Your task to perform on an android device: Open calendar and show me the third week of next month Image 0: 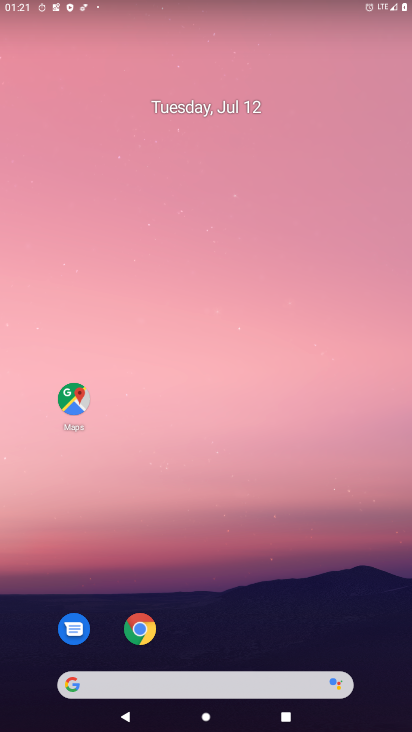
Step 0: drag from (44, 668) to (177, 63)
Your task to perform on an android device: Open calendar and show me the third week of next month Image 1: 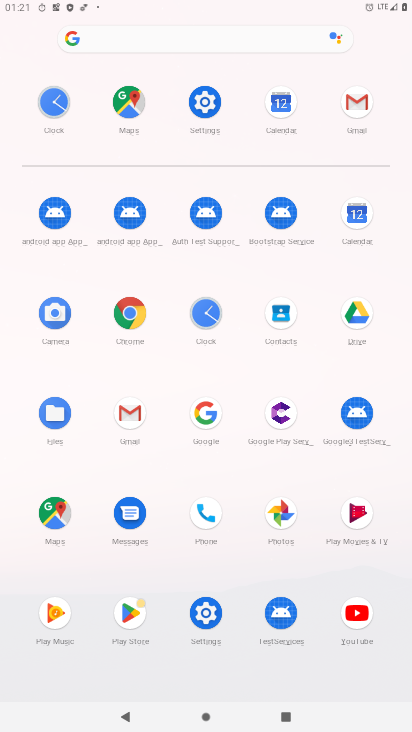
Step 1: click (357, 226)
Your task to perform on an android device: Open calendar and show me the third week of next month Image 2: 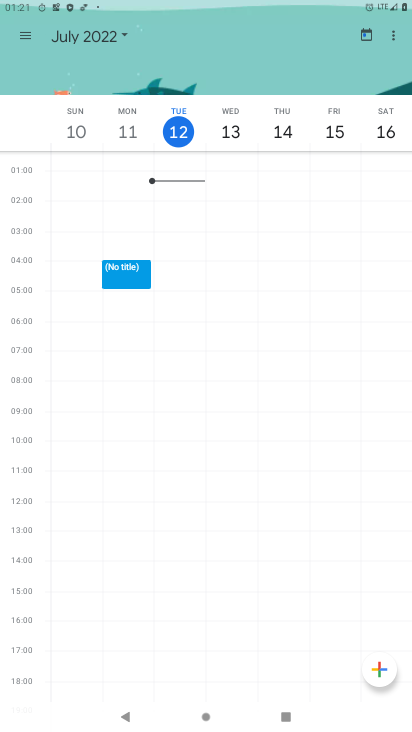
Step 2: click (61, 56)
Your task to perform on an android device: Open calendar and show me the third week of next month Image 3: 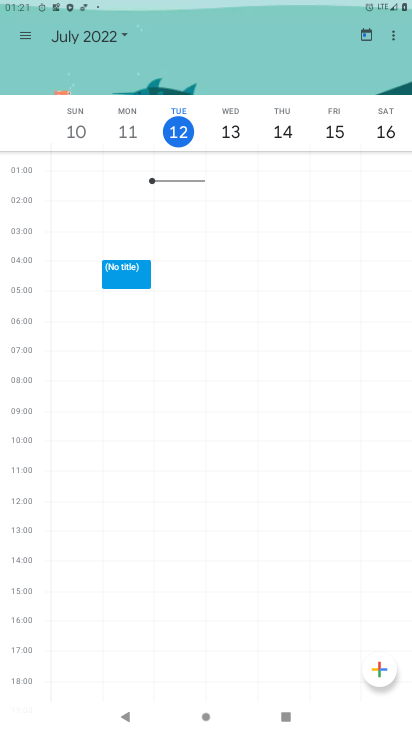
Step 3: click (21, 27)
Your task to perform on an android device: Open calendar and show me the third week of next month Image 4: 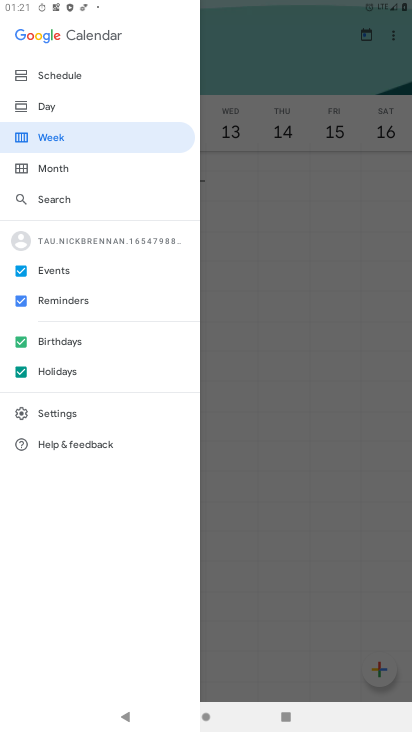
Step 4: click (56, 103)
Your task to perform on an android device: Open calendar and show me the third week of next month Image 5: 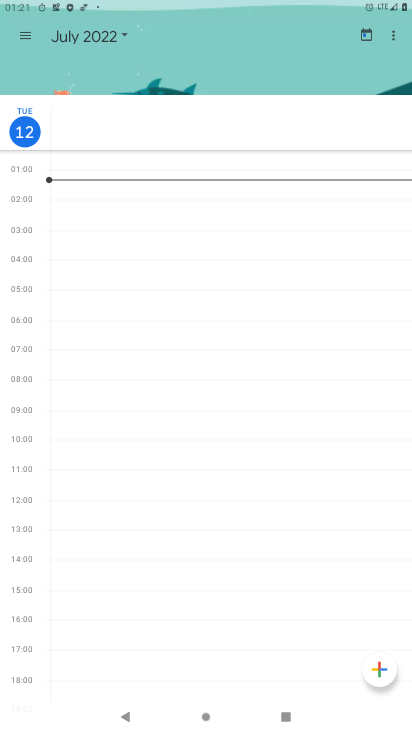
Step 5: click (29, 55)
Your task to perform on an android device: Open calendar and show me the third week of next month Image 6: 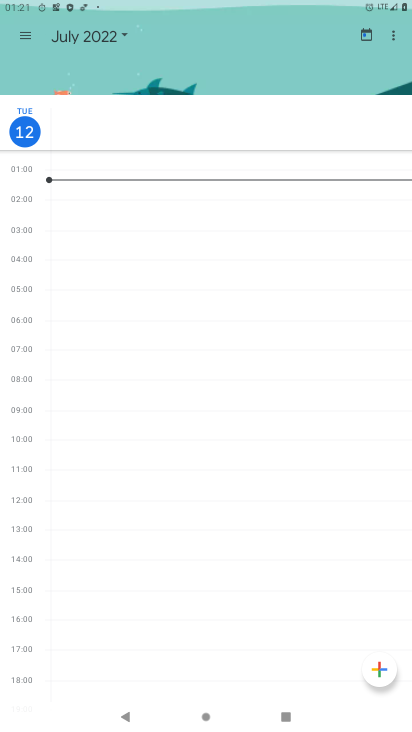
Step 6: click (23, 41)
Your task to perform on an android device: Open calendar and show me the third week of next month Image 7: 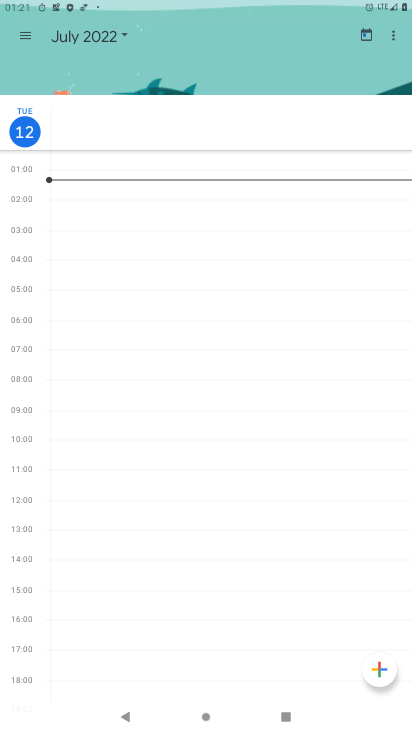
Step 7: click (31, 38)
Your task to perform on an android device: Open calendar and show me the third week of next month Image 8: 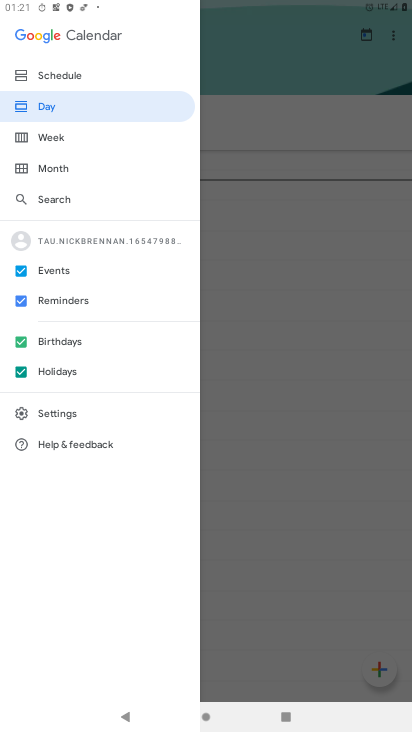
Step 8: click (63, 171)
Your task to perform on an android device: Open calendar and show me the third week of next month Image 9: 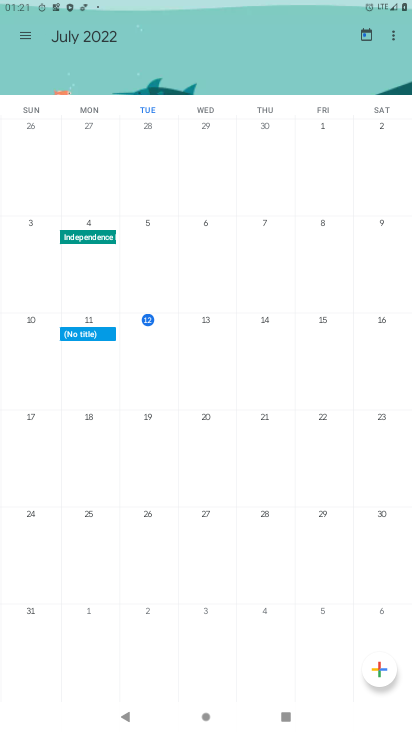
Step 9: drag from (338, 349) to (7, 330)
Your task to perform on an android device: Open calendar and show me the third week of next month Image 10: 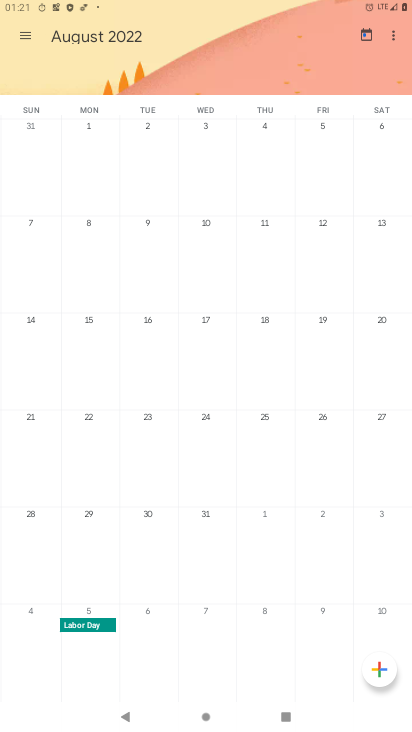
Step 10: click (81, 314)
Your task to perform on an android device: Open calendar and show me the third week of next month Image 11: 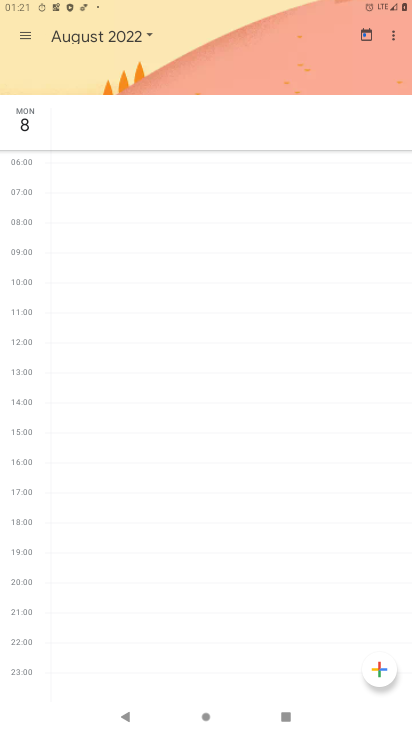
Step 11: task complete